Your task to perform on an android device: Go to Amazon Image 0: 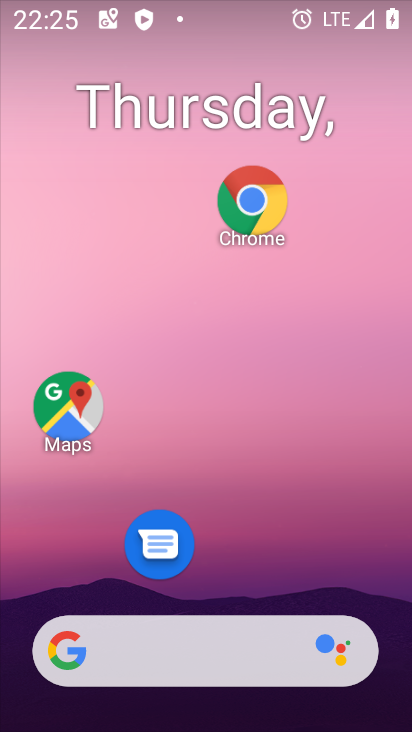
Step 0: click (240, 205)
Your task to perform on an android device: Go to Amazon Image 1: 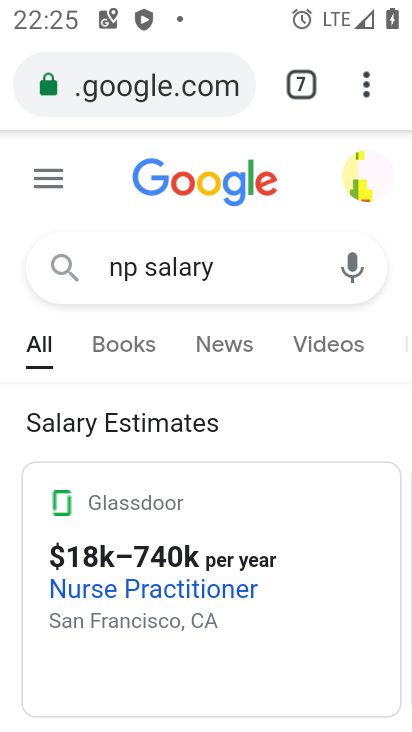
Step 1: click (356, 85)
Your task to perform on an android device: Go to Amazon Image 2: 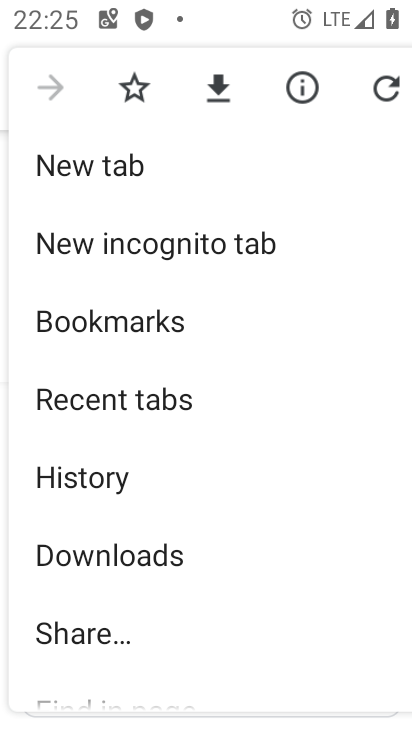
Step 2: click (162, 177)
Your task to perform on an android device: Go to Amazon Image 3: 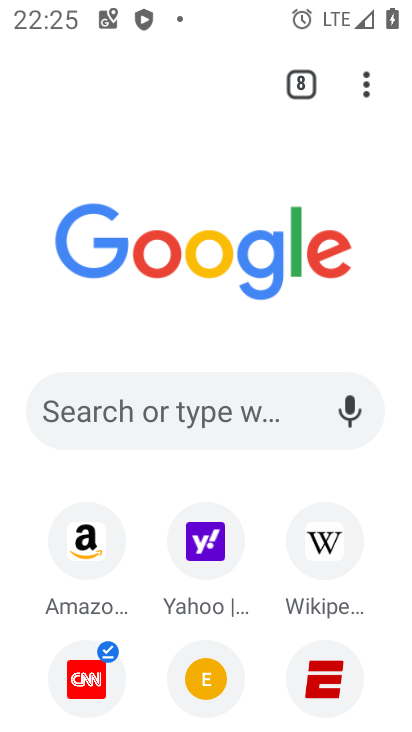
Step 3: click (101, 552)
Your task to perform on an android device: Go to Amazon Image 4: 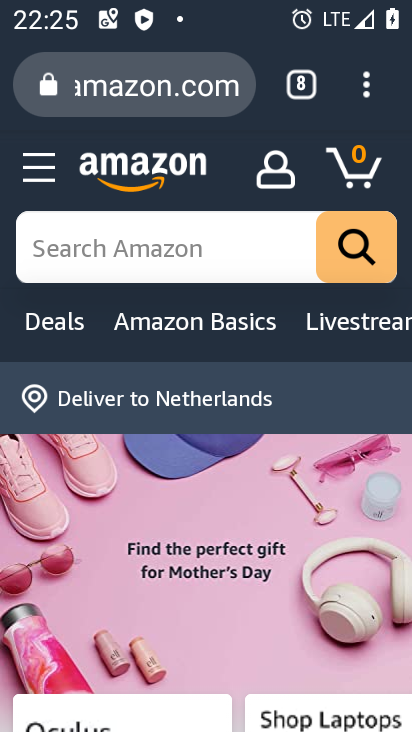
Step 4: task complete